Your task to perform on an android device: toggle data saver in the chrome app Image 0: 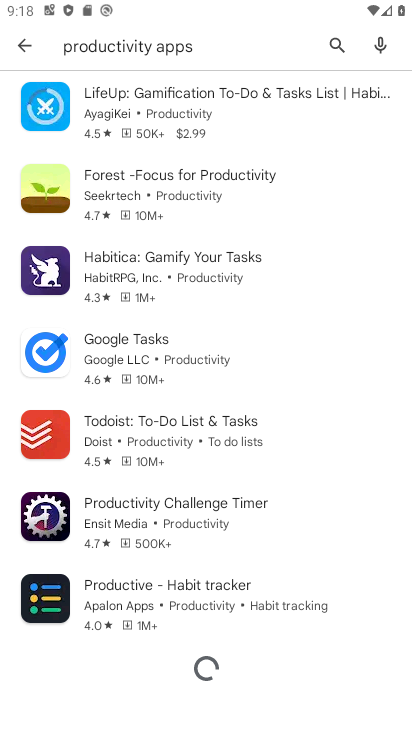
Step 0: press home button
Your task to perform on an android device: toggle data saver in the chrome app Image 1: 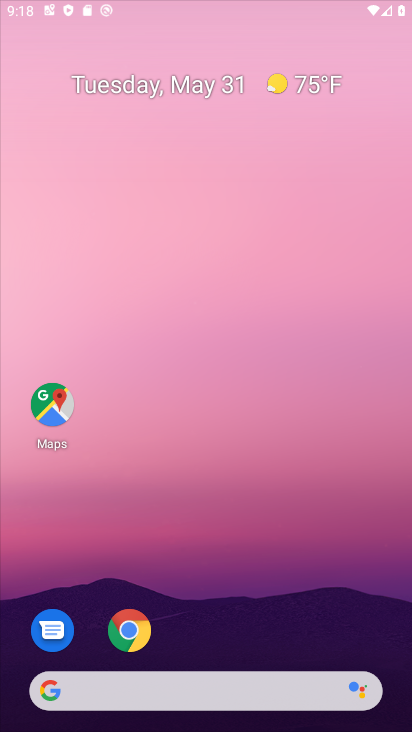
Step 1: drag from (207, 603) to (253, 162)
Your task to perform on an android device: toggle data saver in the chrome app Image 2: 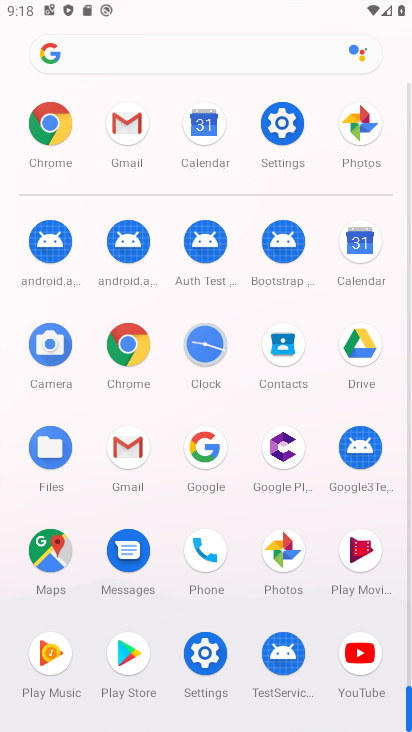
Step 2: click (129, 360)
Your task to perform on an android device: toggle data saver in the chrome app Image 3: 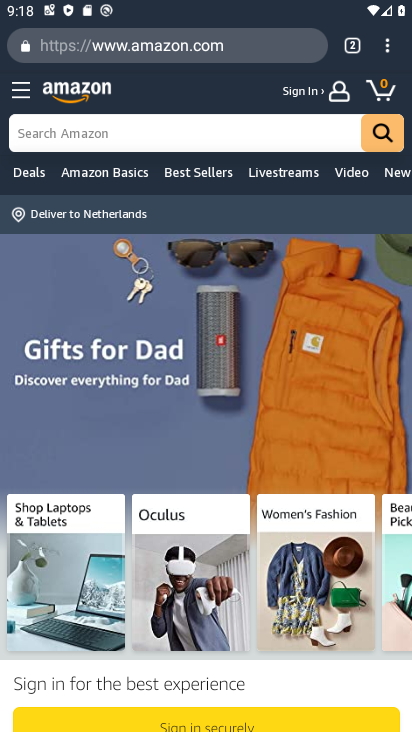
Step 3: click (388, 56)
Your task to perform on an android device: toggle data saver in the chrome app Image 4: 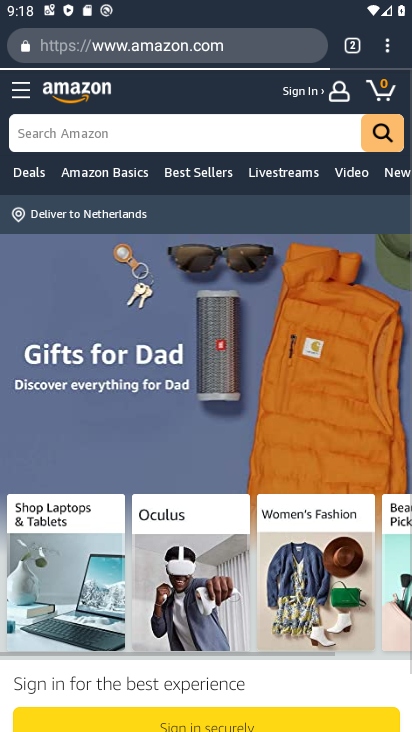
Step 4: click (388, 52)
Your task to perform on an android device: toggle data saver in the chrome app Image 5: 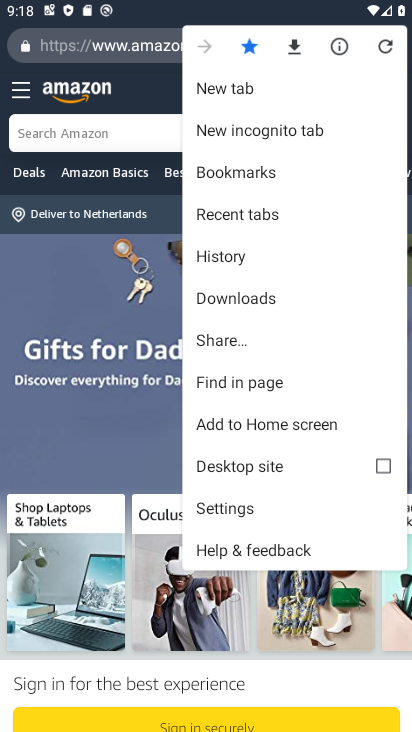
Step 5: click (251, 512)
Your task to perform on an android device: toggle data saver in the chrome app Image 6: 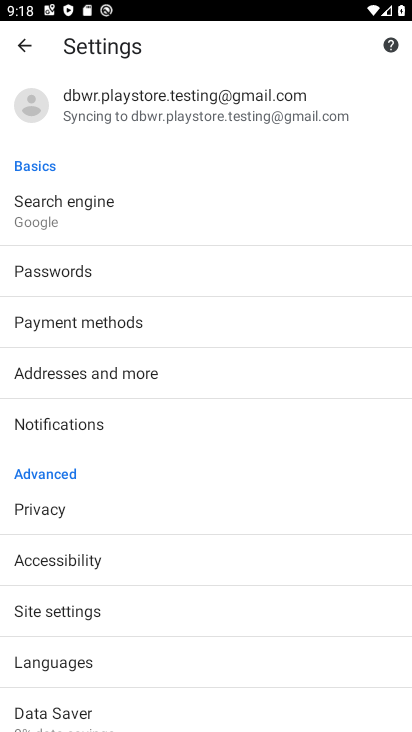
Step 6: drag from (134, 546) to (153, 359)
Your task to perform on an android device: toggle data saver in the chrome app Image 7: 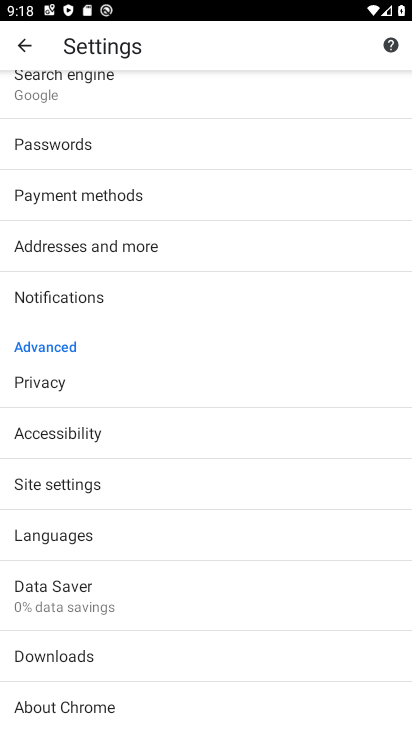
Step 7: drag from (107, 613) to (161, 340)
Your task to perform on an android device: toggle data saver in the chrome app Image 8: 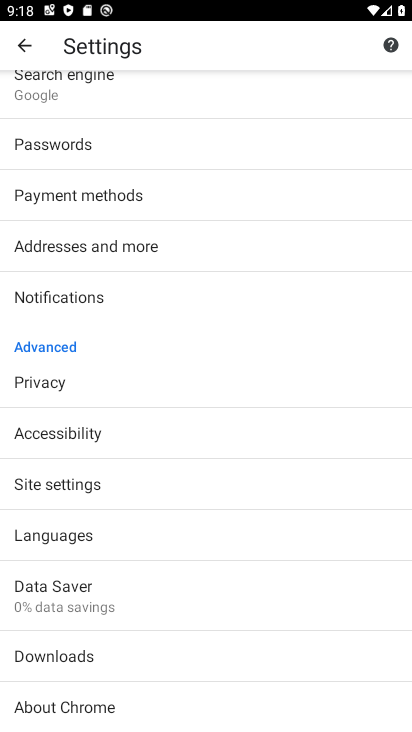
Step 8: click (93, 595)
Your task to perform on an android device: toggle data saver in the chrome app Image 9: 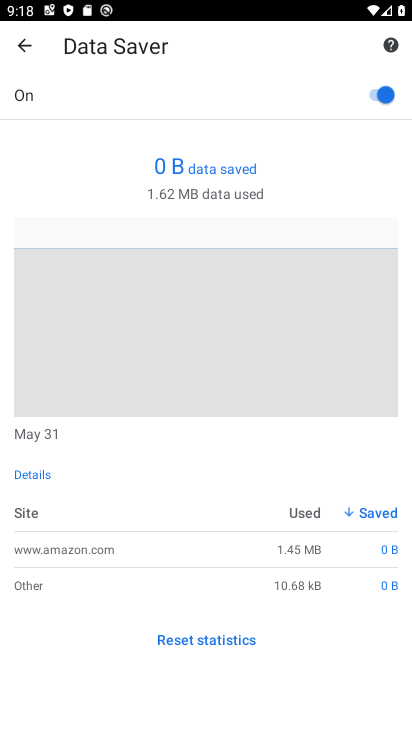
Step 9: click (378, 95)
Your task to perform on an android device: toggle data saver in the chrome app Image 10: 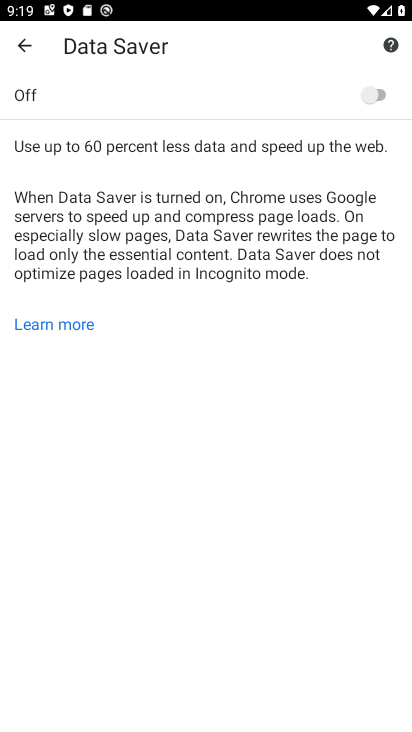
Step 10: task complete